Your task to perform on an android device: turn on location history Image 0: 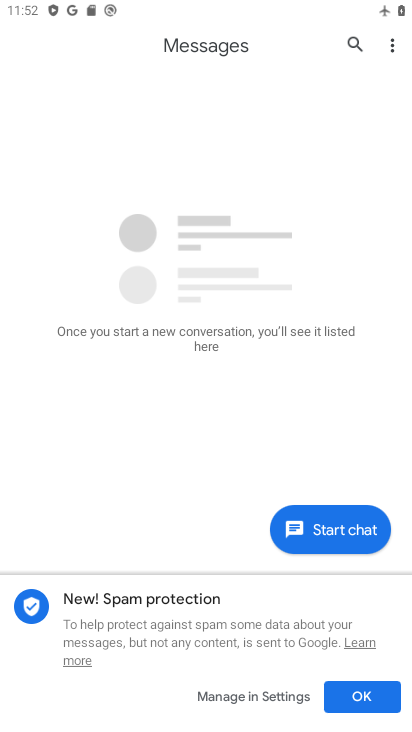
Step 0: press home button
Your task to perform on an android device: turn on location history Image 1: 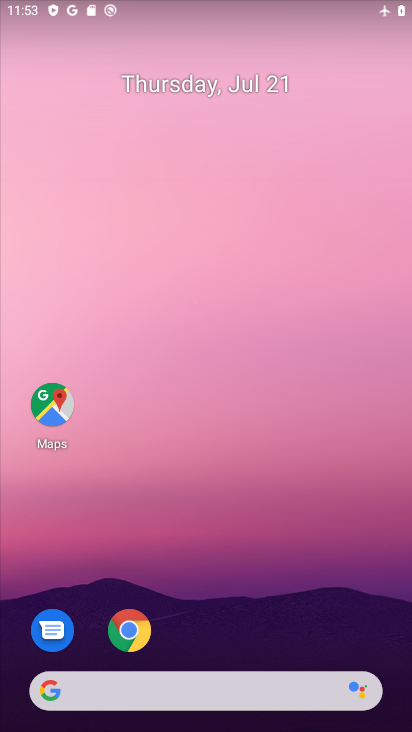
Step 1: drag from (211, 668) to (212, 106)
Your task to perform on an android device: turn on location history Image 2: 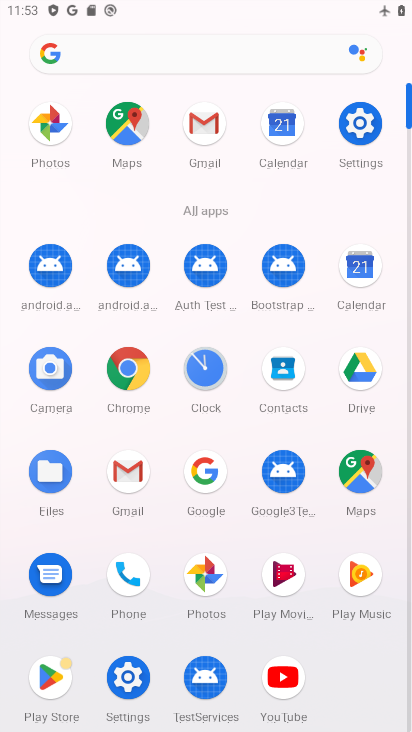
Step 2: click (360, 118)
Your task to perform on an android device: turn on location history Image 3: 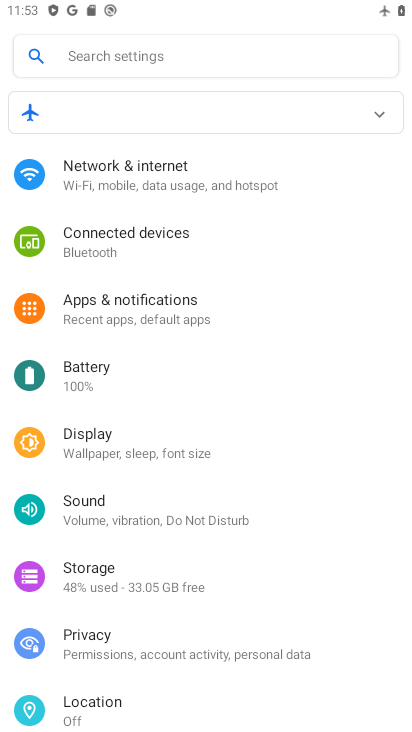
Step 3: drag from (143, 554) to (145, 212)
Your task to perform on an android device: turn on location history Image 4: 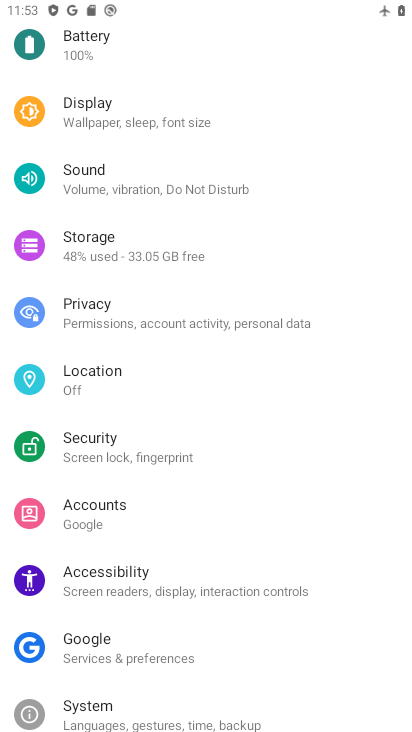
Step 4: click (70, 366)
Your task to perform on an android device: turn on location history Image 5: 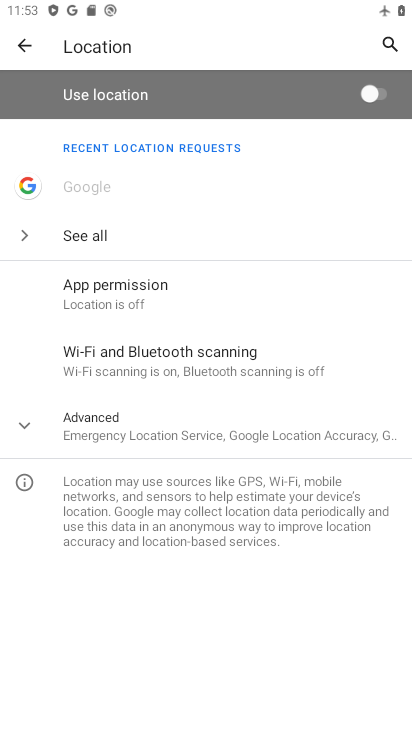
Step 5: click (108, 409)
Your task to perform on an android device: turn on location history Image 6: 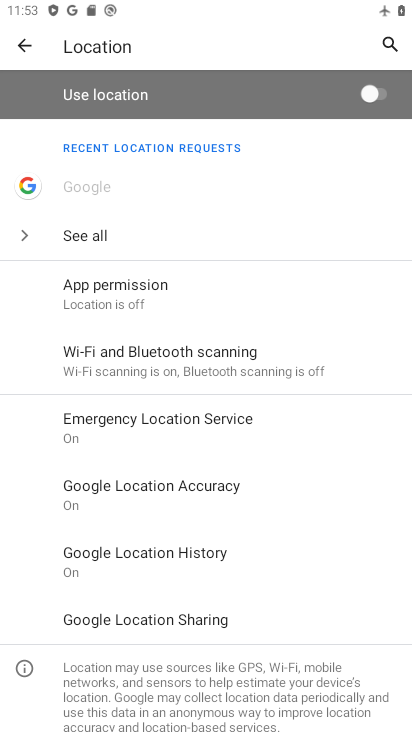
Step 6: click (190, 545)
Your task to perform on an android device: turn on location history Image 7: 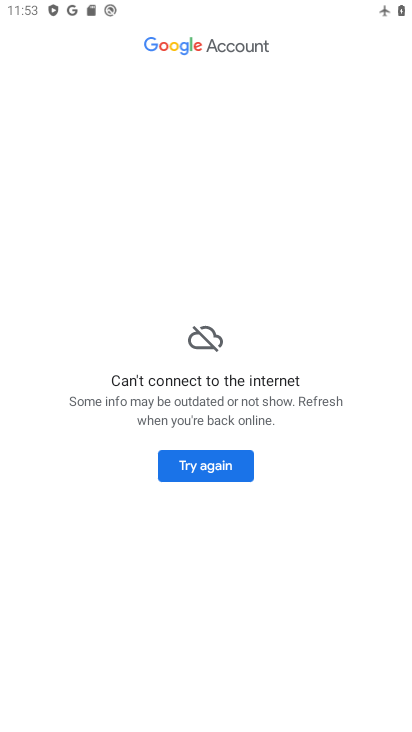
Step 7: click (230, 459)
Your task to perform on an android device: turn on location history Image 8: 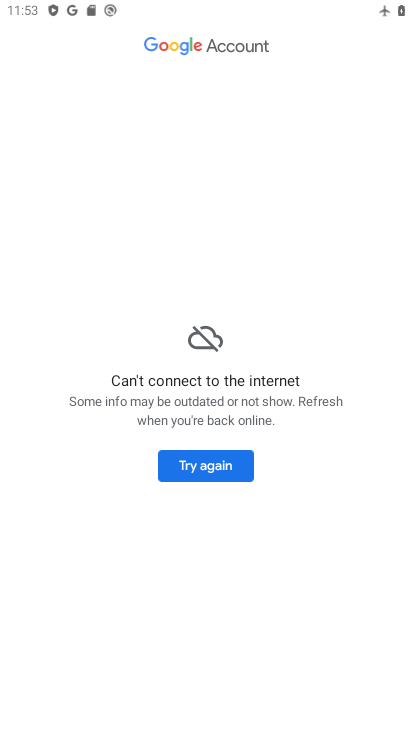
Step 8: task complete